Your task to perform on an android device: turn on data saver in the chrome app Image 0: 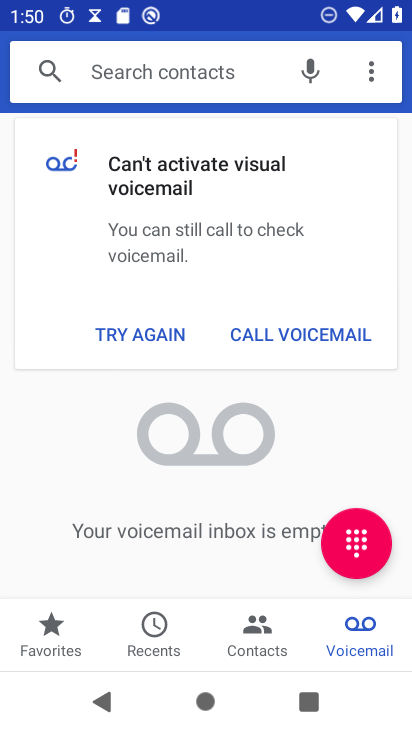
Step 0: press home button
Your task to perform on an android device: turn on data saver in the chrome app Image 1: 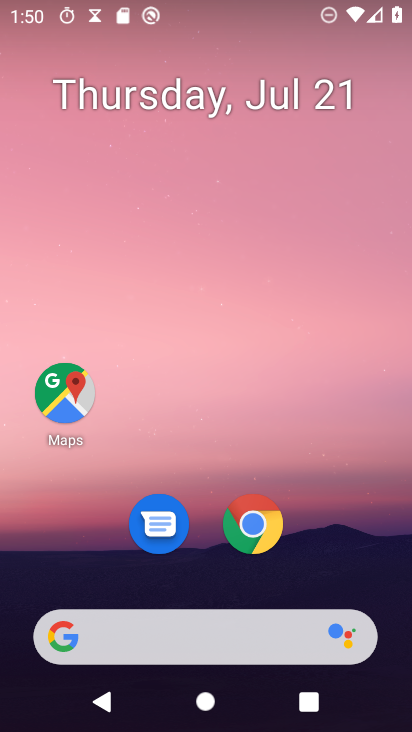
Step 1: drag from (216, 638) to (280, 171)
Your task to perform on an android device: turn on data saver in the chrome app Image 2: 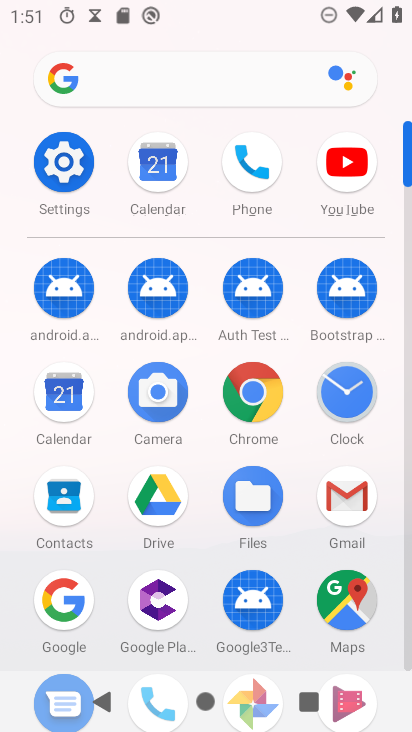
Step 2: click (263, 385)
Your task to perform on an android device: turn on data saver in the chrome app Image 3: 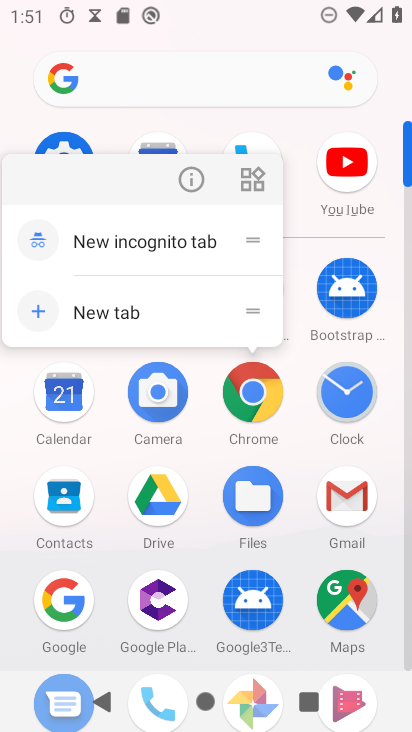
Step 3: click (245, 404)
Your task to perform on an android device: turn on data saver in the chrome app Image 4: 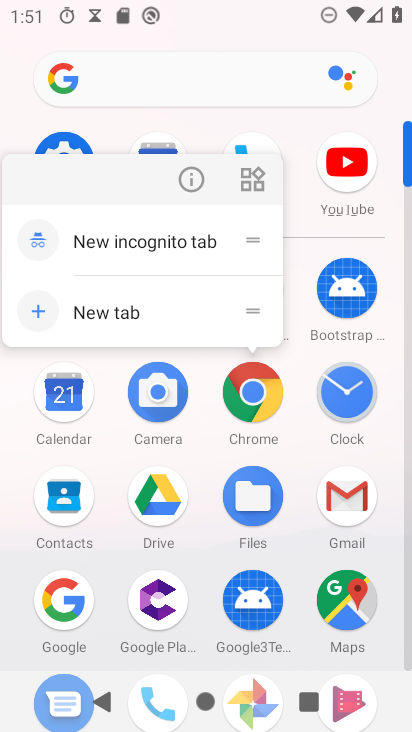
Step 4: click (248, 402)
Your task to perform on an android device: turn on data saver in the chrome app Image 5: 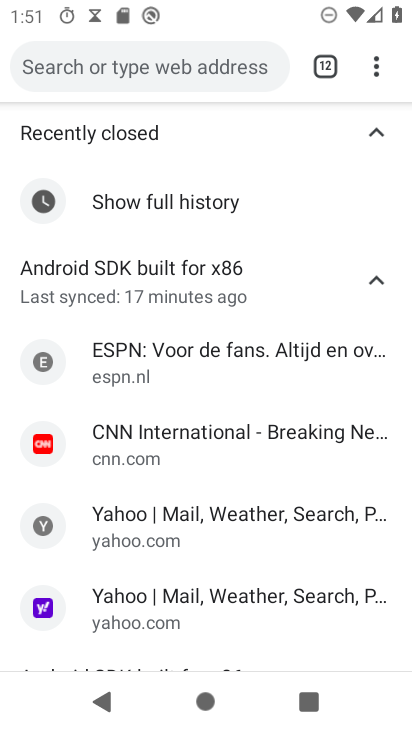
Step 5: drag from (373, 61) to (223, 574)
Your task to perform on an android device: turn on data saver in the chrome app Image 6: 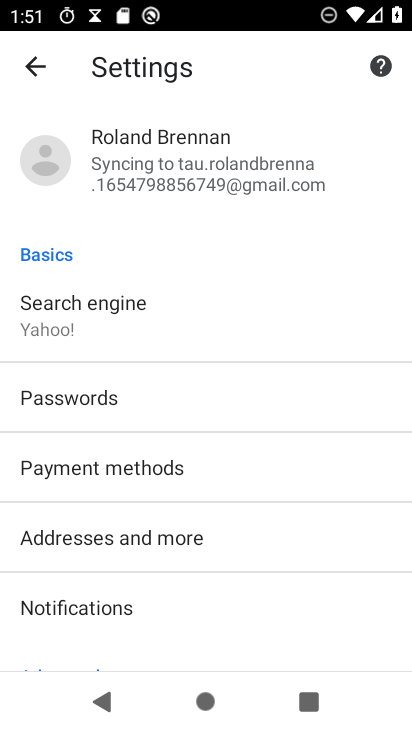
Step 6: drag from (175, 617) to (277, 285)
Your task to perform on an android device: turn on data saver in the chrome app Image 7: 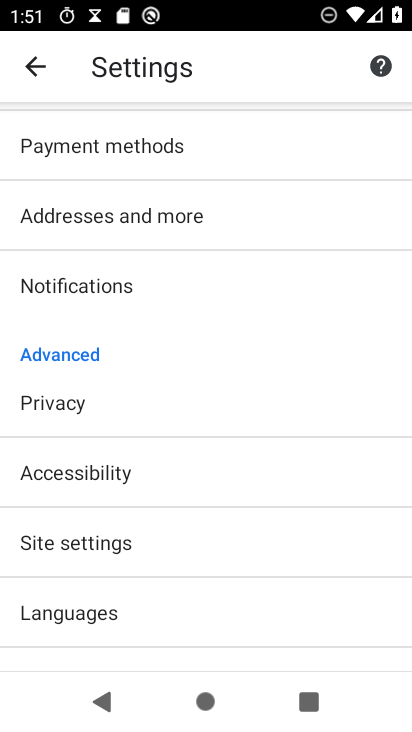
Step 7: drag from (231, 510) to (339, 395)
Your task to perform on an android device: turn on data saver in the chrome app Image 8: 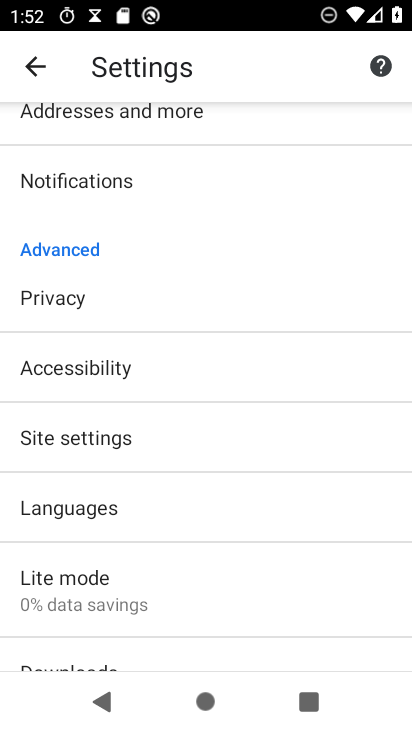
Step 8: click (143, 573)
Your task to perform on an android device: turn on data saver in the chrome app Image 9: 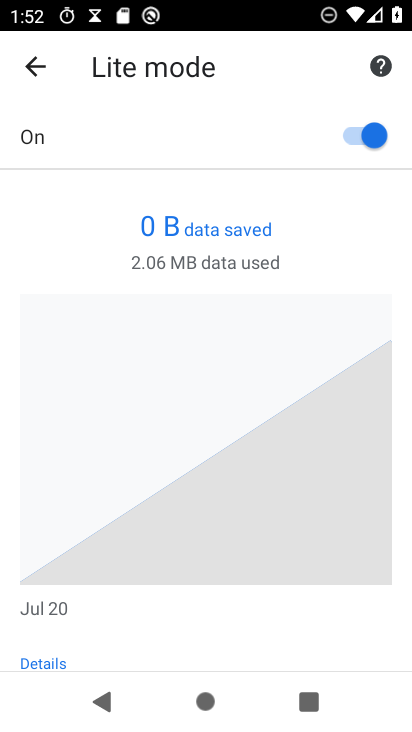
Step 9: task complete